Your task to perform on an android device: Go to Android settings Image 0: 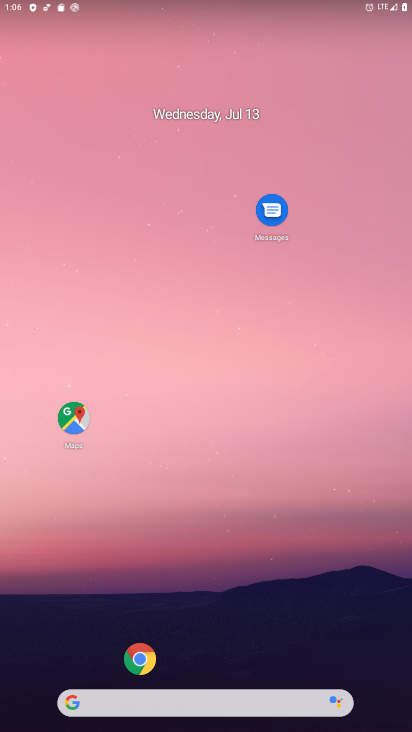
Step 0: drag from (37, 694) to (410, 262)
Your task to perform on an android device: Go to Android settings Image 1: 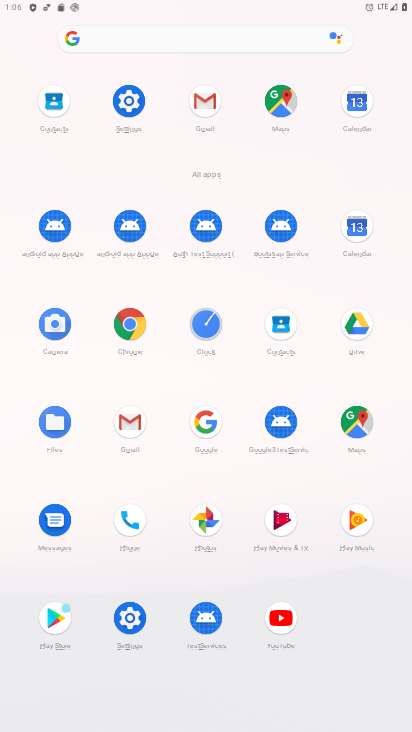
Step 1: click (139, 626)
Your task to perform on an android device: Go to Android settings Image 2: 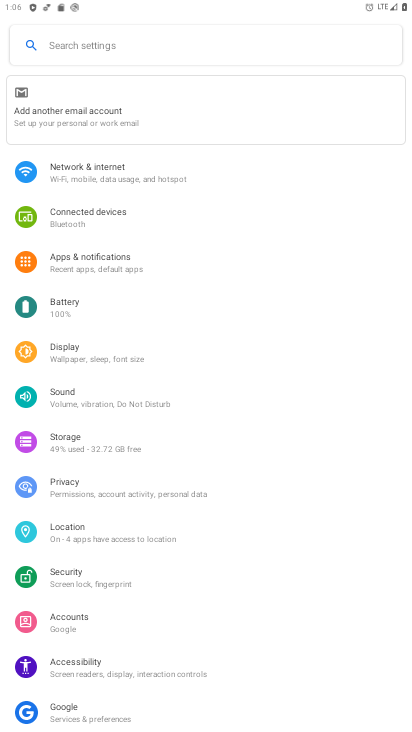
Step 2: drag from (243, 649) to (315, 298)
Your task to perform on an android device: Go to Android settings Image 3: 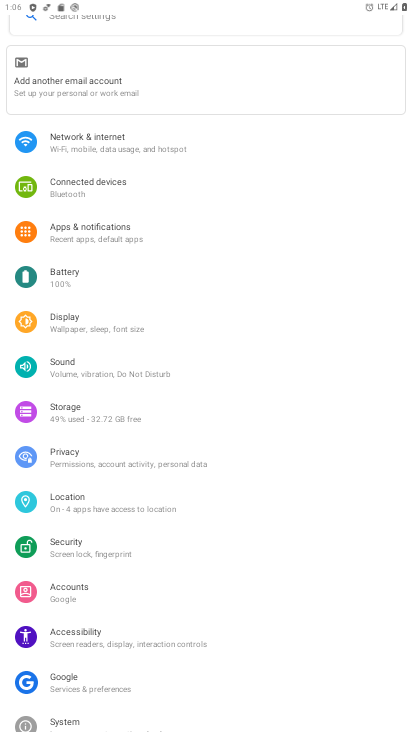
Step 3: drag from (134, 687) to (213, 335)
Your task to perform on an android device: Go to Android settings Image 4: 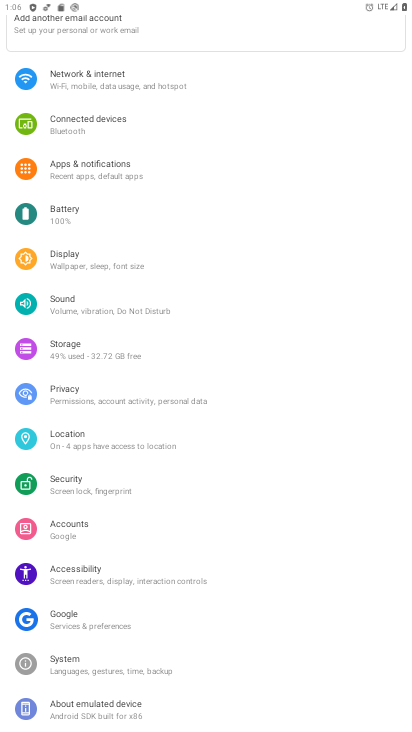
Step 4: click (139, 707)
Your task to perform on an android device: Go to Android settings Image 5: 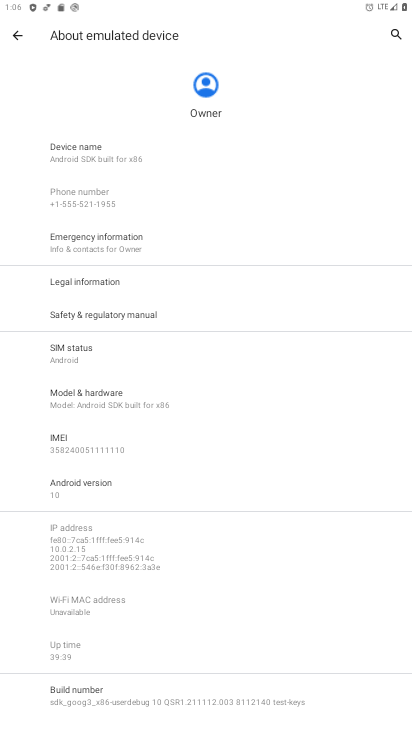
Step 5: task complete